Your task to perform on an android device: Clear all items from cart on newegg.com. Image 0: 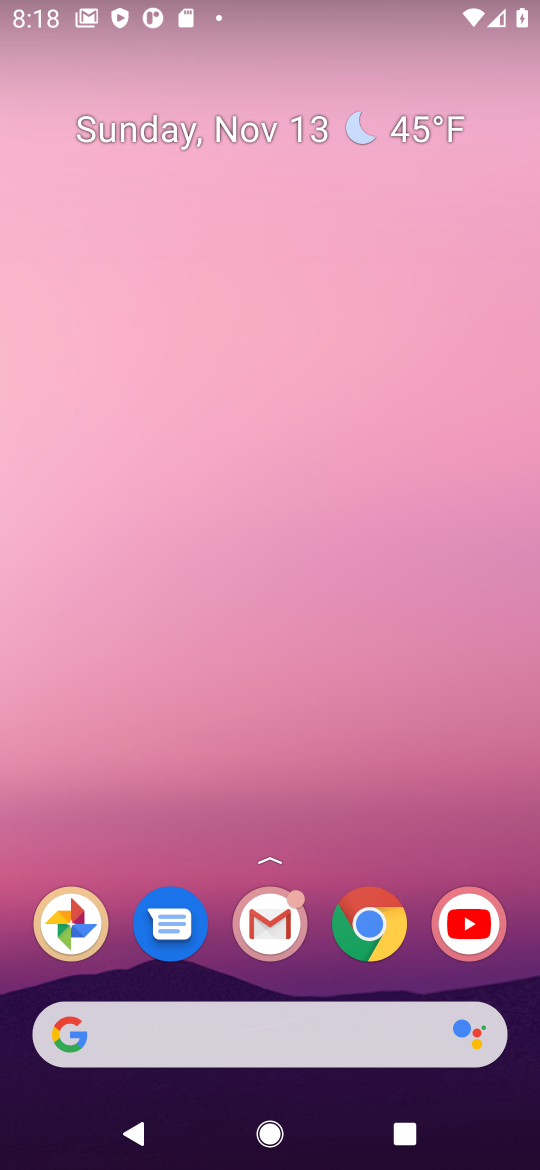
Step 0: click (362, 918)
Your task to perform on an android device: Clear all items from cart on newegg.com. Image 1: 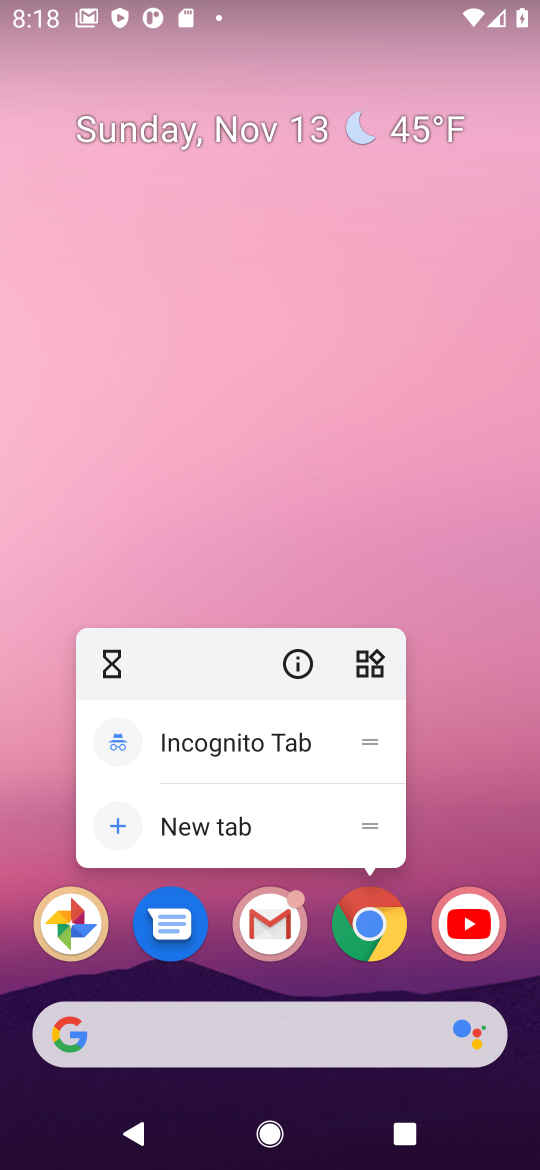
Step 1: click (377, 931)
Your task to perform on an android device: Clear all items from cart on newegg.com. Image 2: 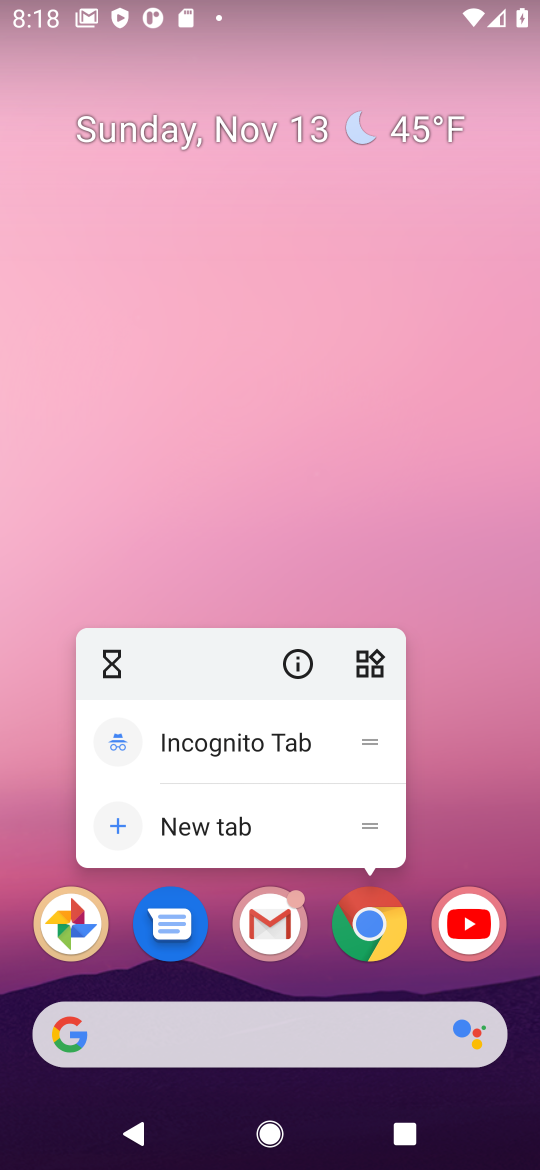
Step 2: click (378, 941)
Your task to perform on an android device: Clear all items from cart on newegg.com. Image 3: 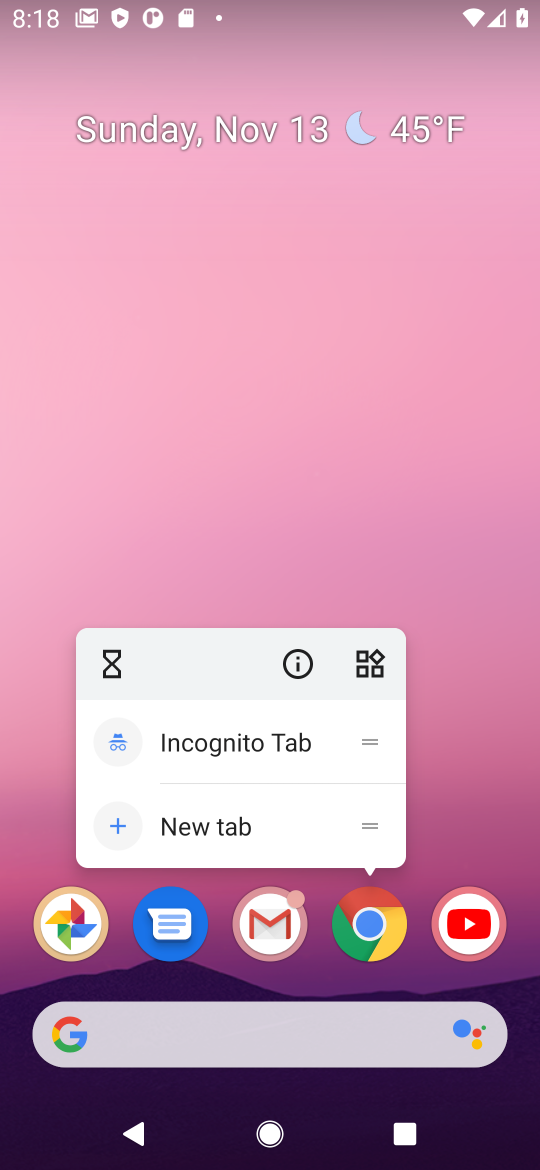
Step 3: click (381, 916)
Your task to perform on an android device: Clear all items from cart on newegg.com. Image 4: 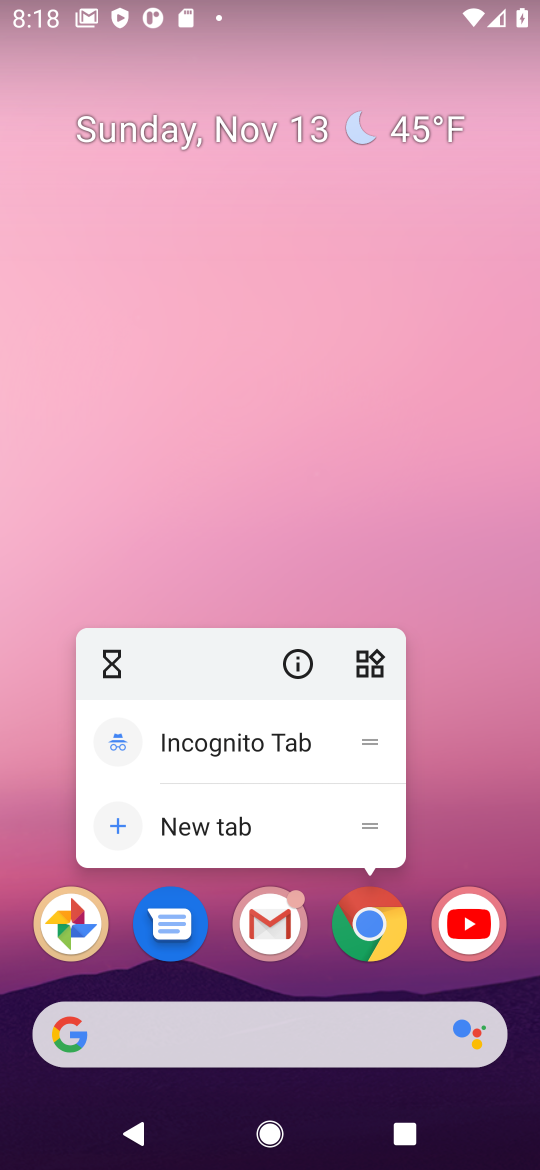
Step 4: click (368, 912)
Your task to perform on an android device: Clear all items from cart on newegg.com. Image 5: 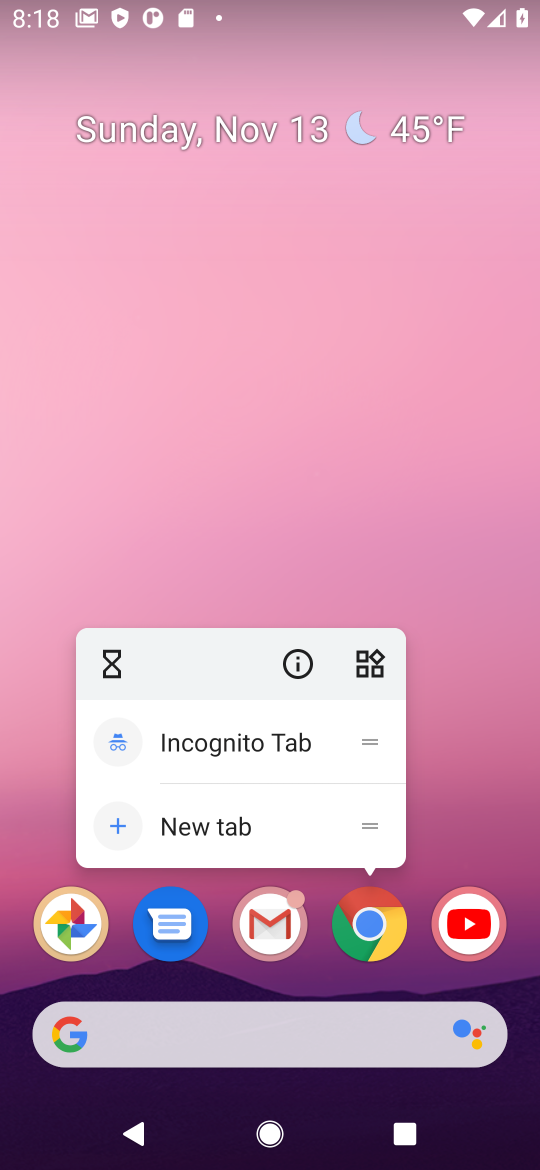
Step 5: click (368, 918)
Your task to perform on an android device: Clear all items from cart on newegg.com. Image 6: 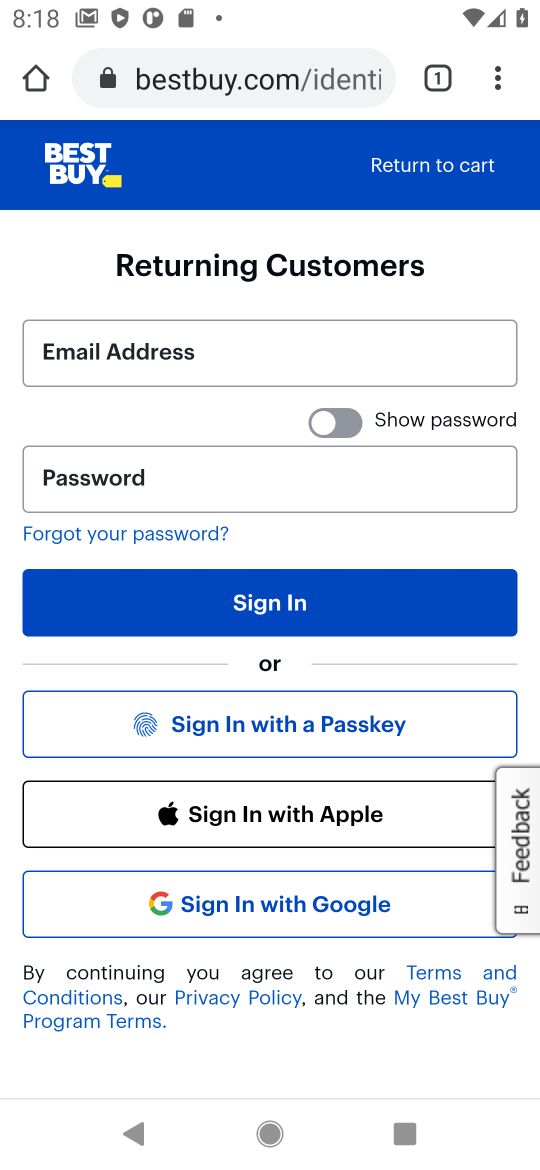
Step 6: click (269, 65)
Your task to perform on an android device: Clear all items from cart on newegg.com. Image 7: 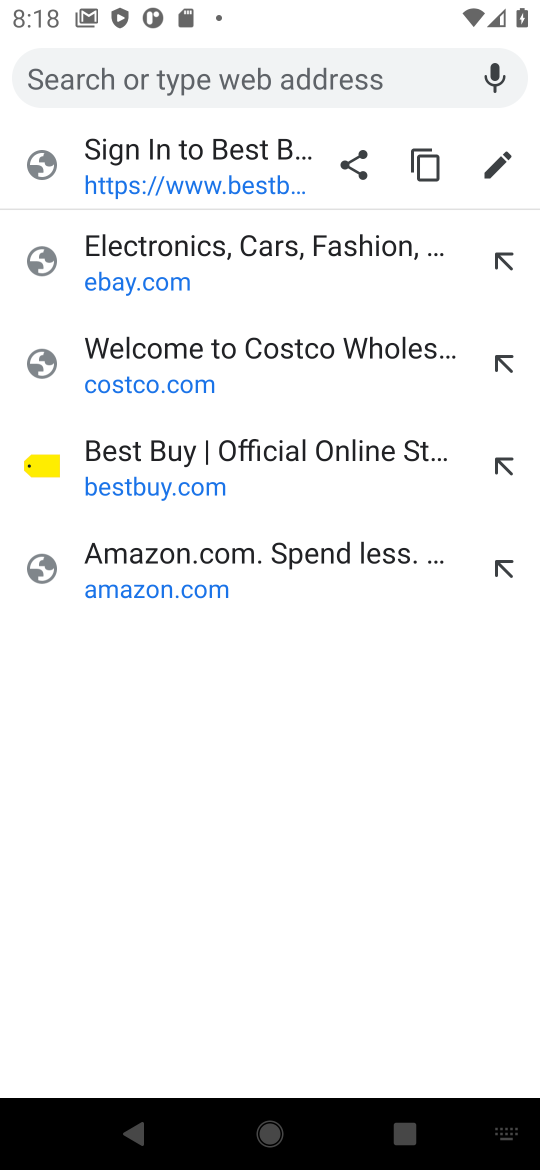
Step 7: type "newegg.com"
Your task to perform on an android device: Clear all items from cart on newegg.com. Image 8: 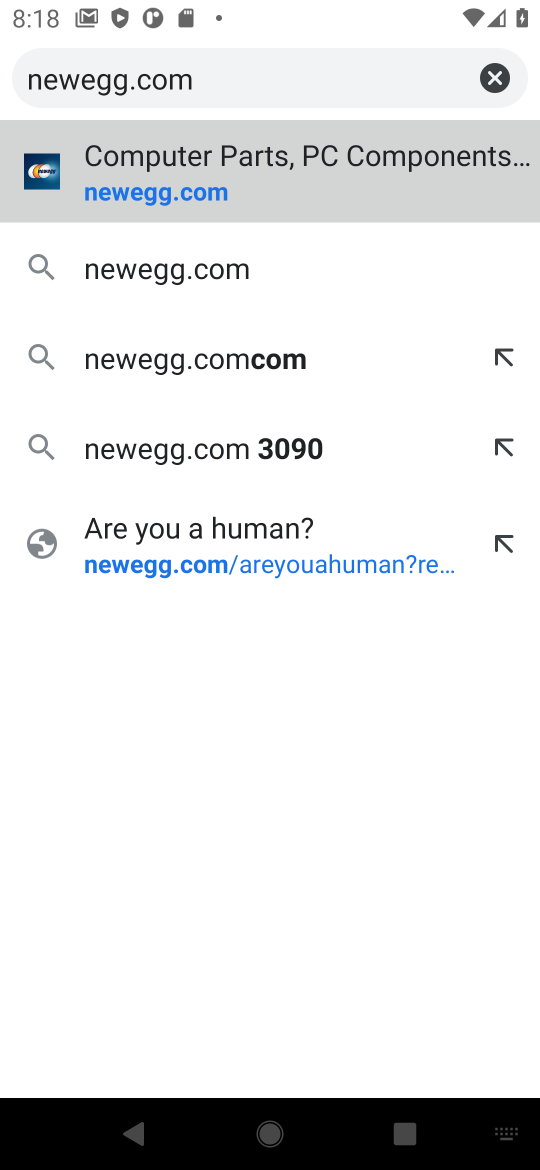
Step 8: press enter
Your task to perform on an android device: Clear all items from cart on newegg.com. Image 9: 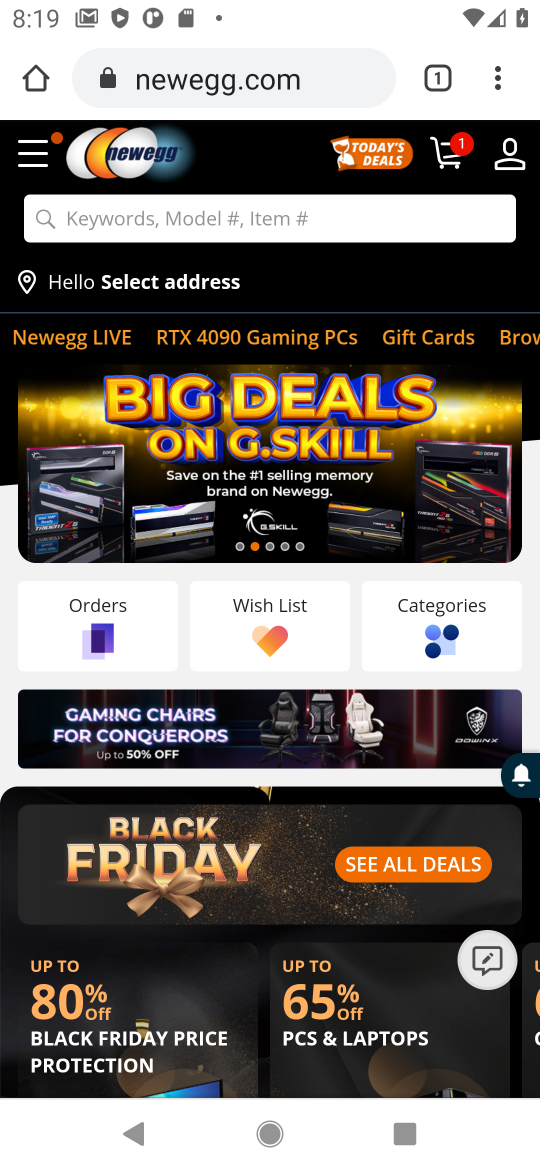
Step 9: click (446, 148)
Your task to perform on an android device: Clear all items from cart on newegg.com. Image 10: 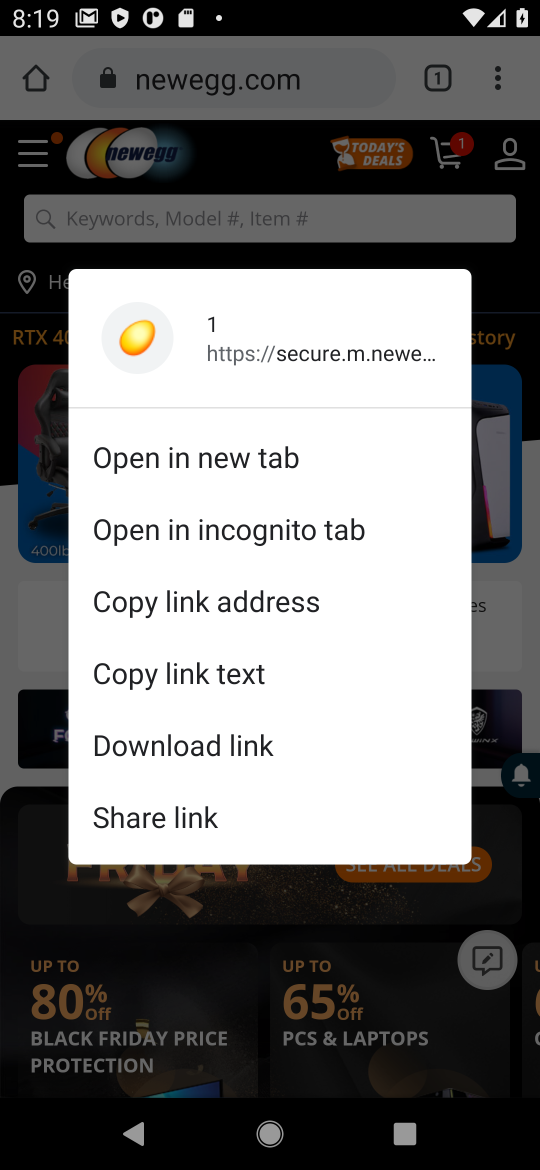
Step 10: click (462, 141)
Your task to perform on an android device: Clear all items from cart on newegg.com. Image 11: 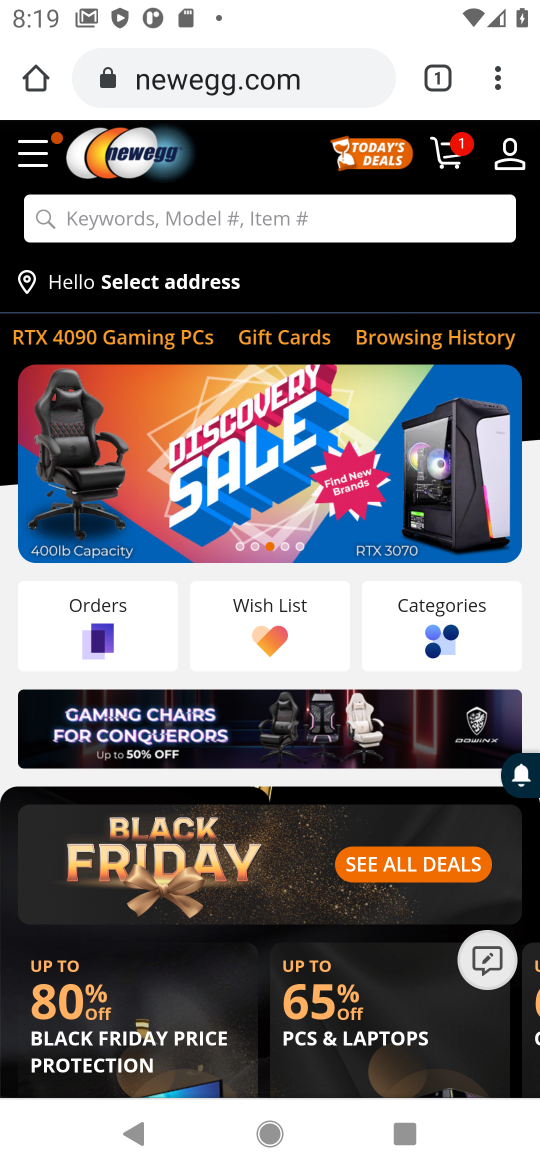
Step 11: click (462, 145)
Your task to perform on an android device: Clear all items from cart on newegg.com. Image 12: 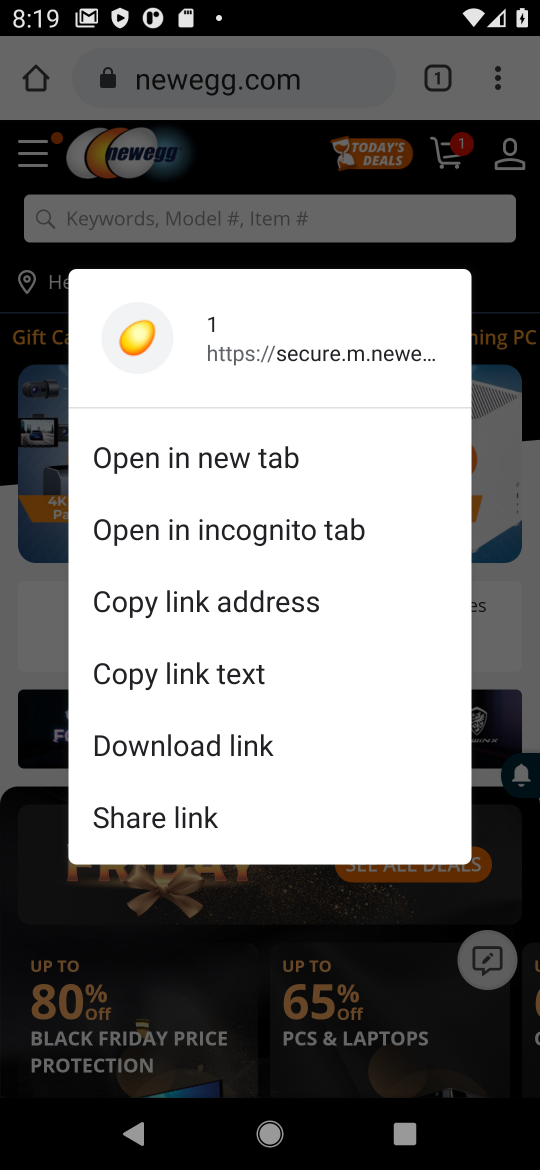
Step 12: click (452, 148)
Your task to perform on an android device: Clear all items from cart on newegg.com. Image 13: 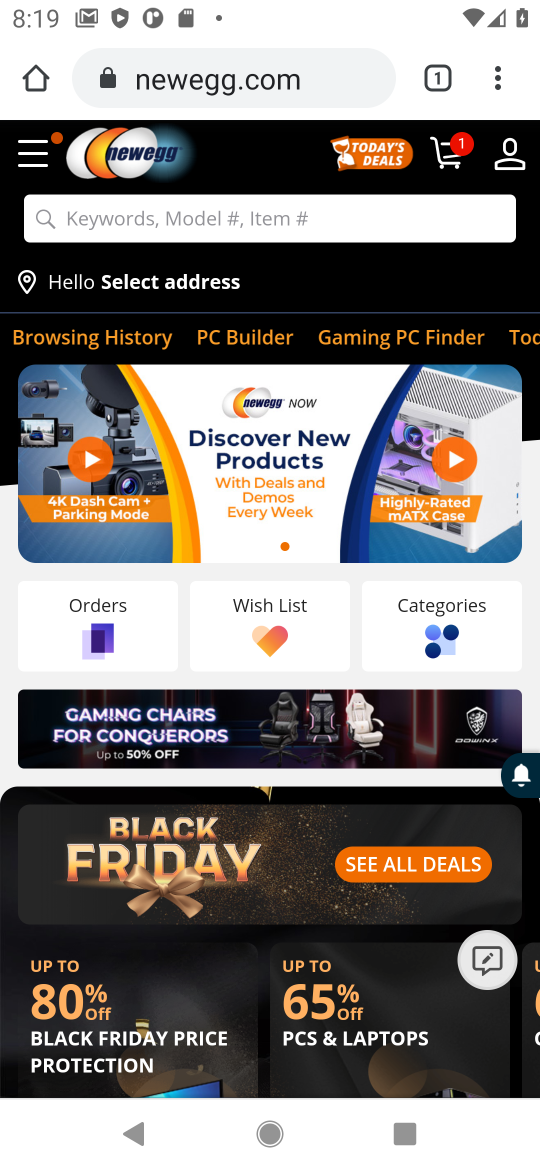
Step 13: click (456, 159)
Your task to perform on an android device: Clear all items from cart on newegg.com. Image 14: 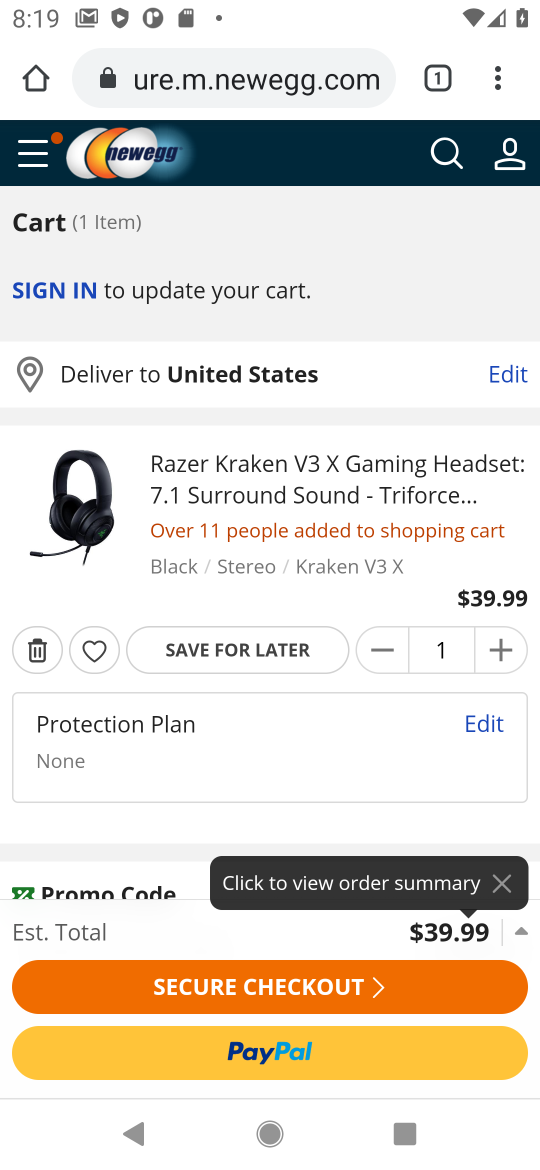
Step 14: click (34, 643)
Your task to perform on an android device: Clear all items from cart on newegg.com. Image 15: 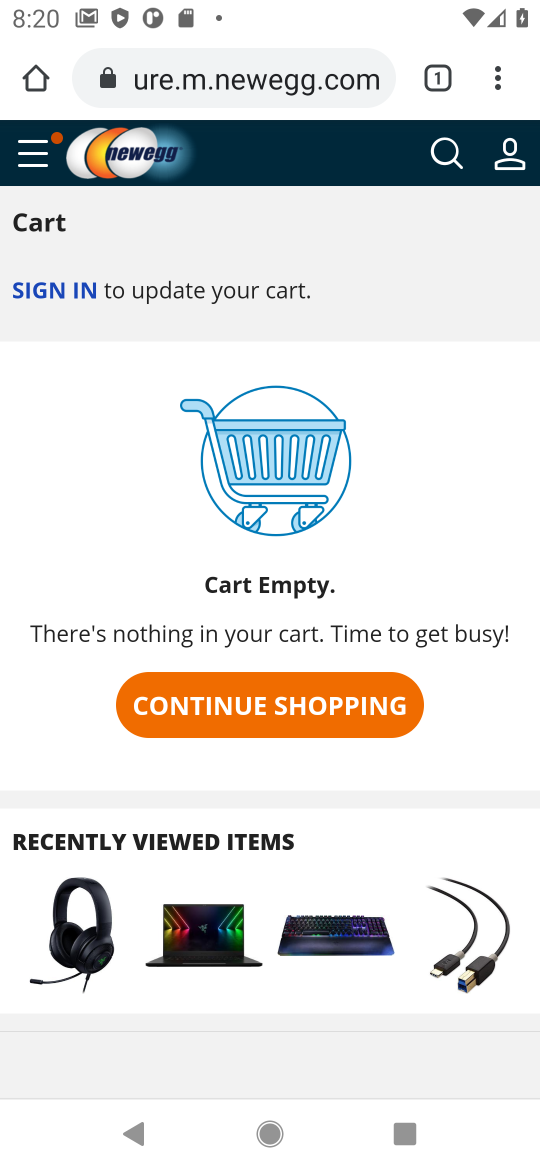
Step 15: task complete